Your task to perform on an android device: Open display settings Image 0: 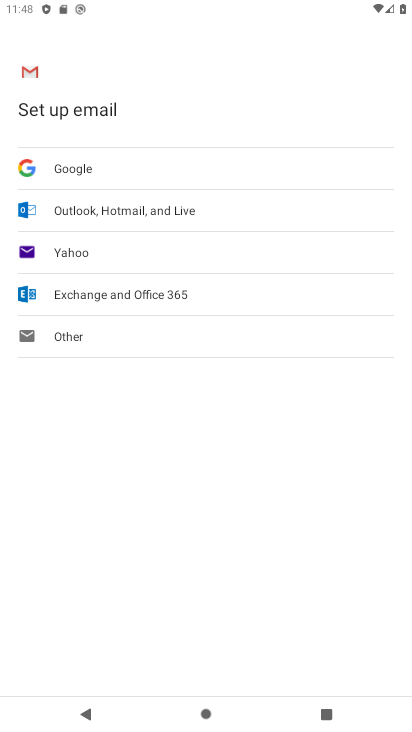
Step 0: press back button
Your task to perform on an android device: Open display settings Image 1: 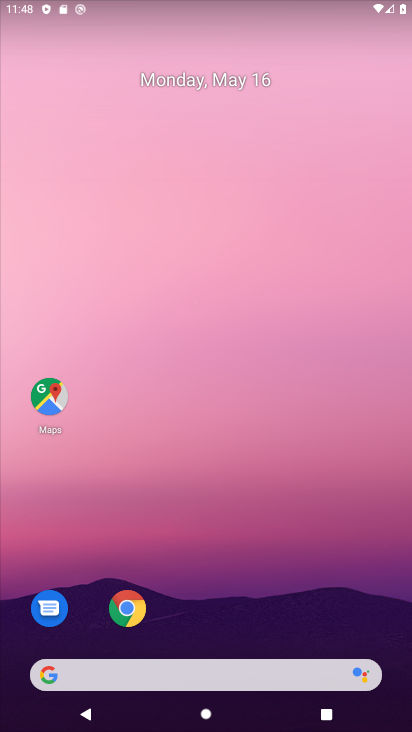
Step 1: drag from (356, 549) to (338, 227)
Your task to perform on an android device: Open display settings Image 2: 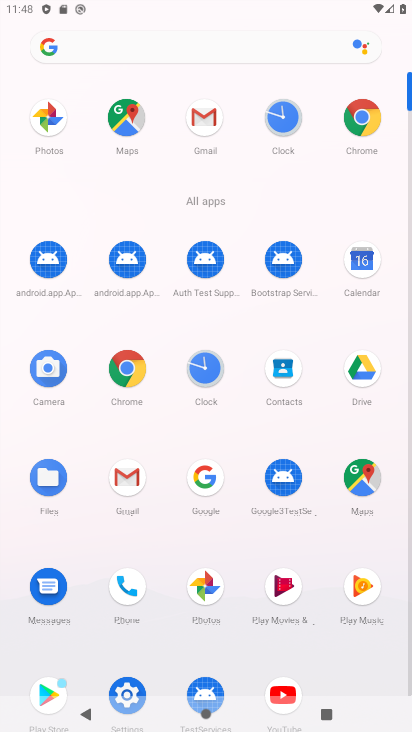
Step 2: drag from (165, 592) to (174, 446)
Your task to perform on an android device: Open display settings Image 3: 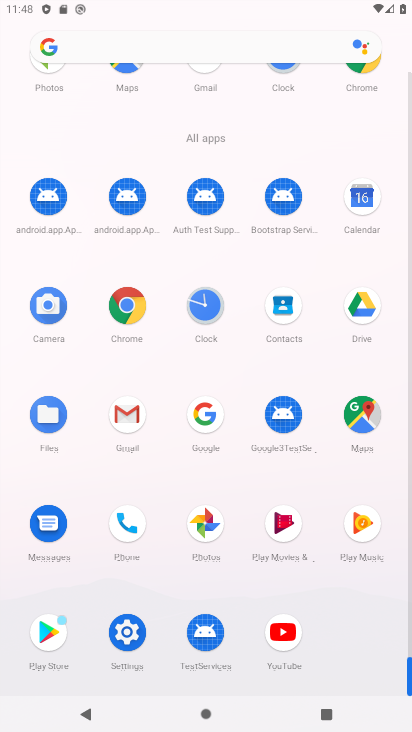
Step 3: click (122, 637)
Your task to perform on an android device: Open display settings Image 4: 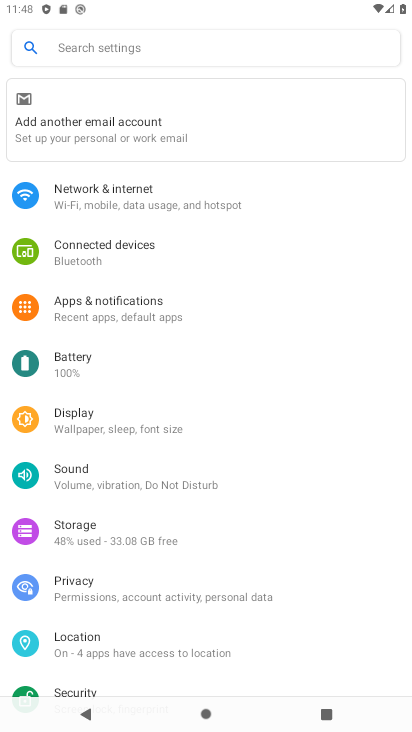
Step 4: drag from (320, 512) to (341, 389)
Your task to perform on an android device: Open display settings Image 5: 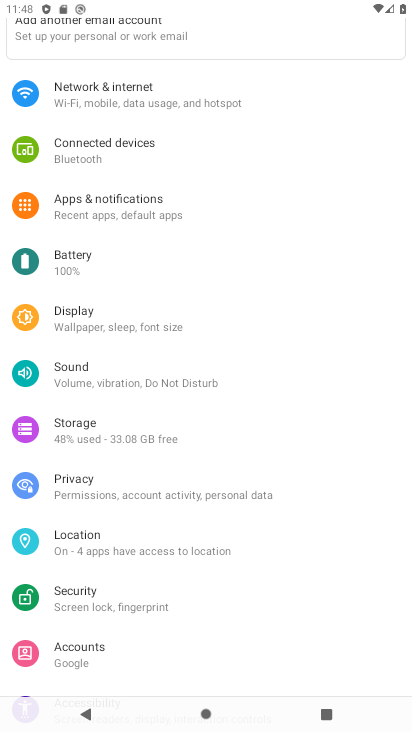
Step 5: drag from (320, 588) to (320, 452)
Your task to perform on an android device: Open display settings Image 6: 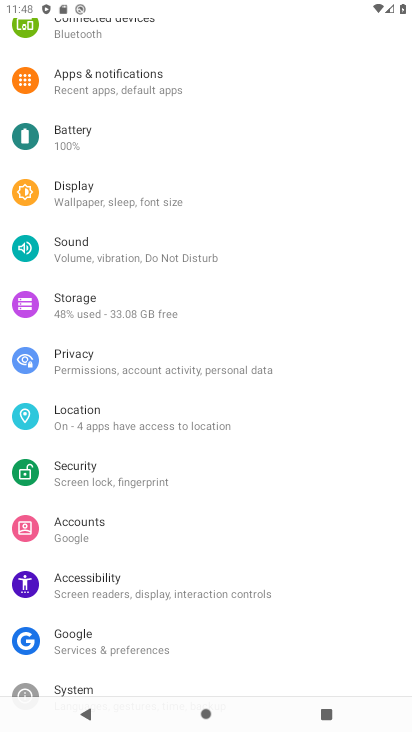
Step 6: drag from (287, 615) to (320, 490)
Your task to perform on an android device: Open display settings Image 7: 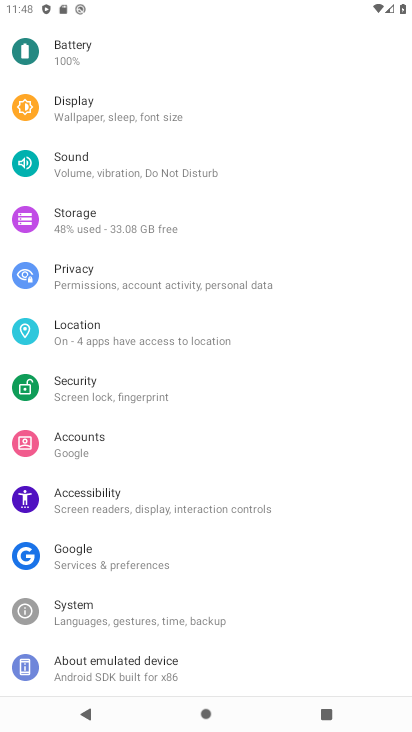
Step 7: drag from (305, 622) to (316, 503)
Your task to perform on an android device: Open display settings Image 8: 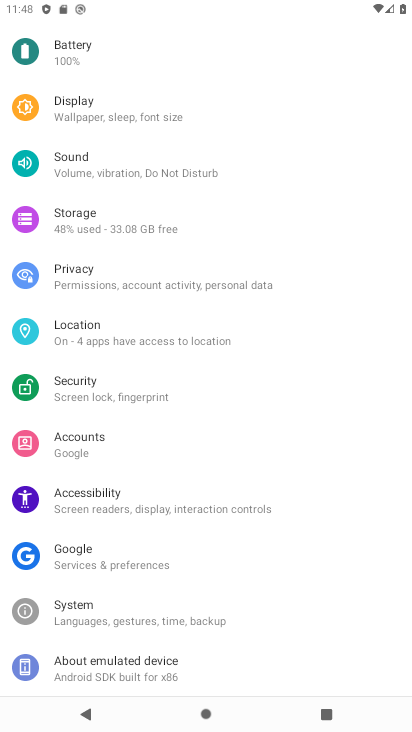
Step 8: drag from (322, 401) to (319, 519)
Your task to perform on an android device: Open display settings Image 9: 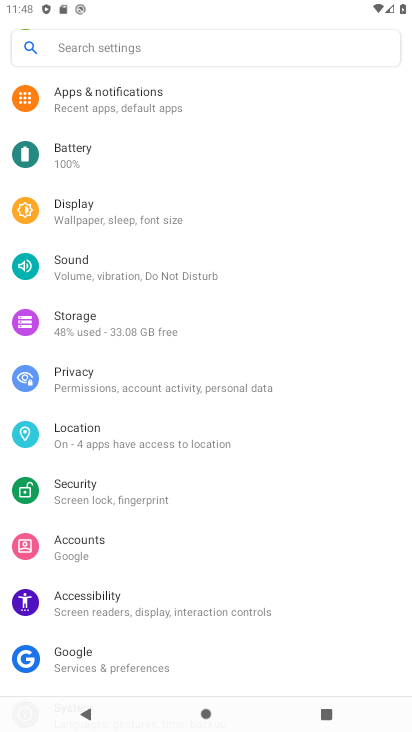
Step 9: drag from (325, 399) to (322, 488)
Your task to perform on an android device: Open display settings Image 10: 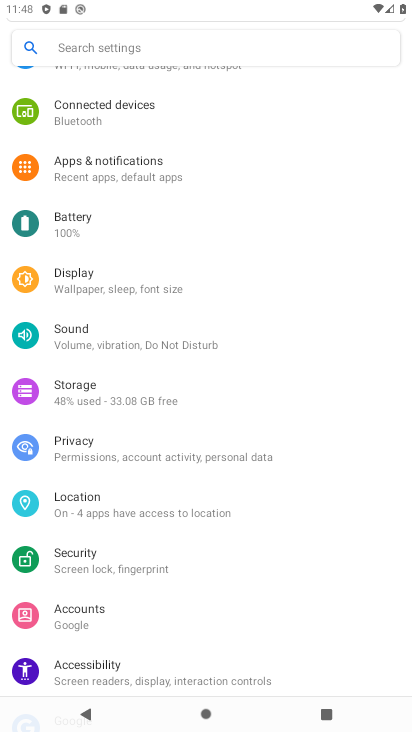
Step 10: drag from (327, 376) to (327, 445)
Your task to perform on an android device: Open display settings Image 11: 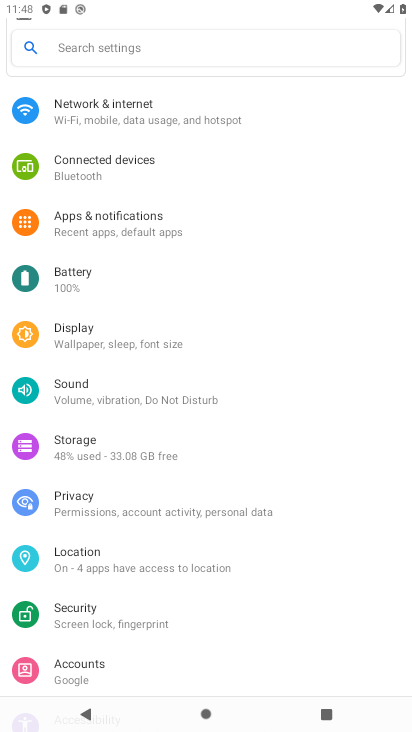
Step 11: drag from (303, 331) to (308, 432)
Your task to perform on an android device: Open display settings Image 12: 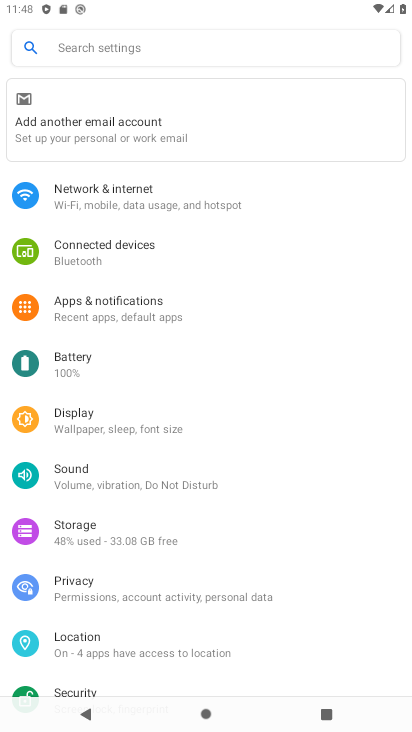
Step 12: click (147, 431)
Your task to perform on an android device: Open display settings Image 13: 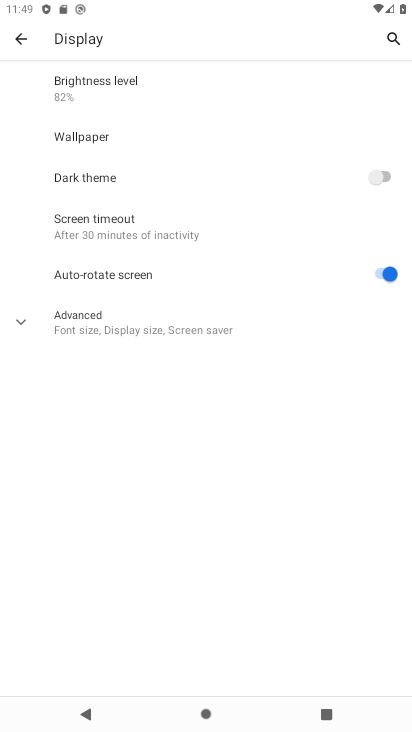
Step 13: task complete